Your task to perform on an android device: turn off location history Image 0: 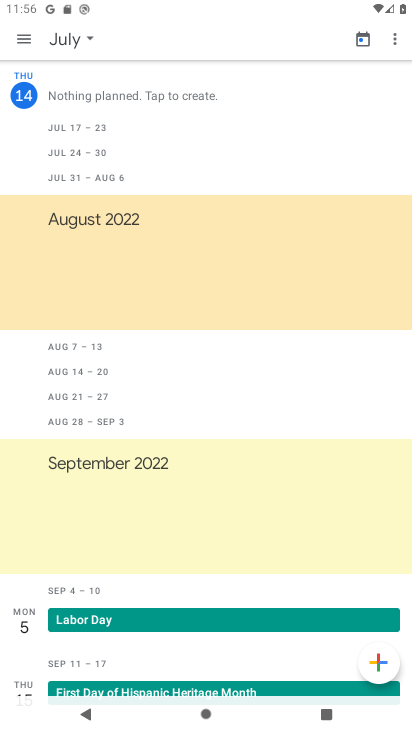
Step 0: press home button
Your task to perform on an android device: turn off location history Image 1: 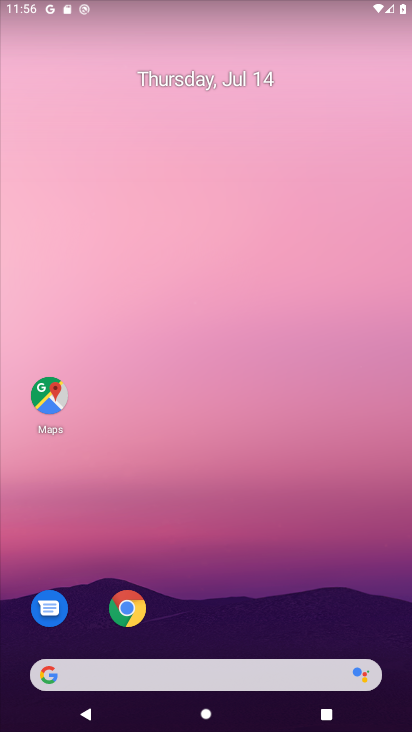
Step 1: click (46, 392)
Your task to perform on an android device: turn off location history Image 2: 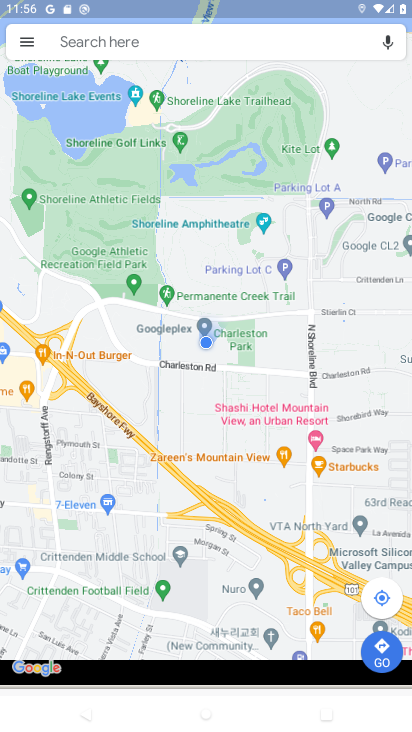
Step 2: click (21, 33)
Your task to perform on an android device: turn off location history Image 3: 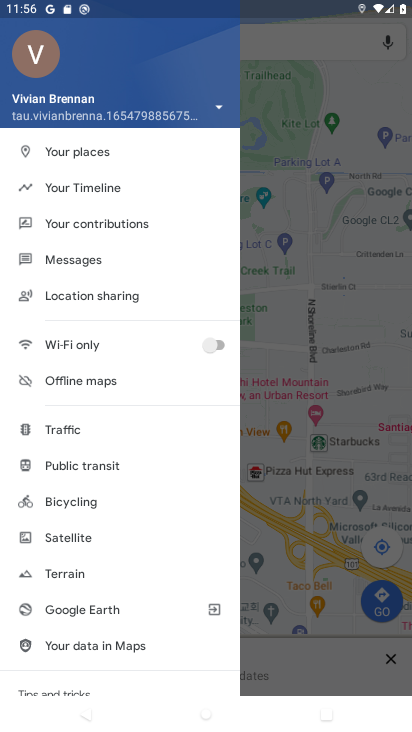
Step 3: click (85, 188)
Your task to perform on an android device: turn off location history Image 4: 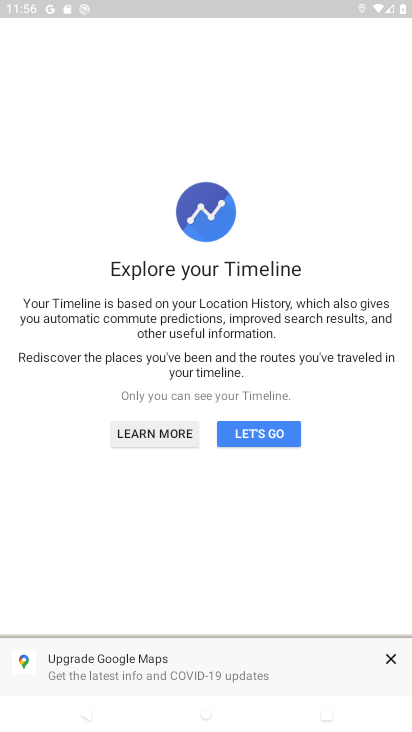
Step 4: click (276, 443)
Your task to perform on an android device: turn off location history Image 5: 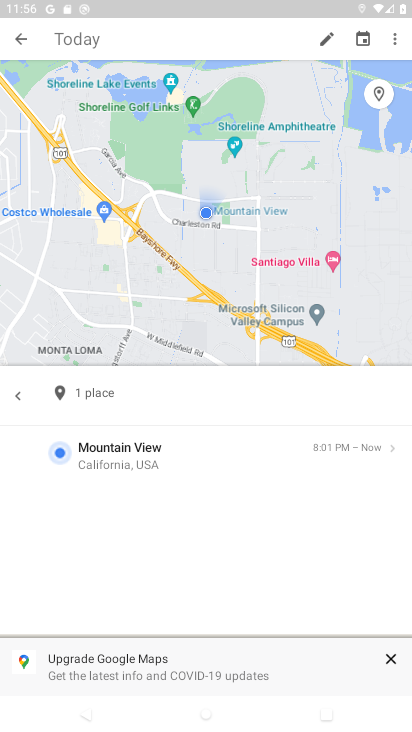
Step 5: click (395, 41)
Your task to perform on an android device: turn off location history Image 6: 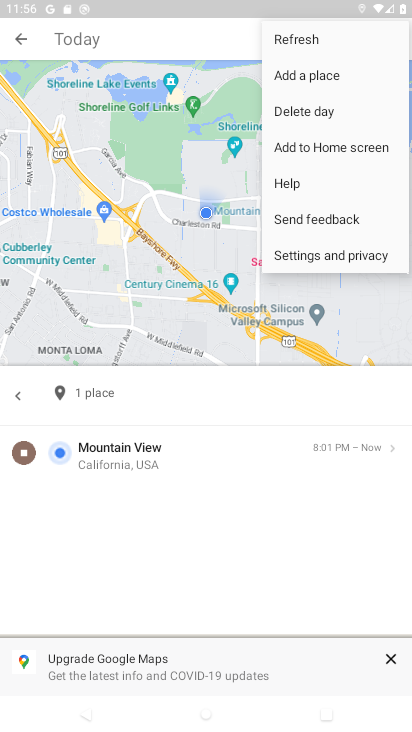
Step 6: click (309, 253)
Your task to perform on an android device: turn off location history Image 7: 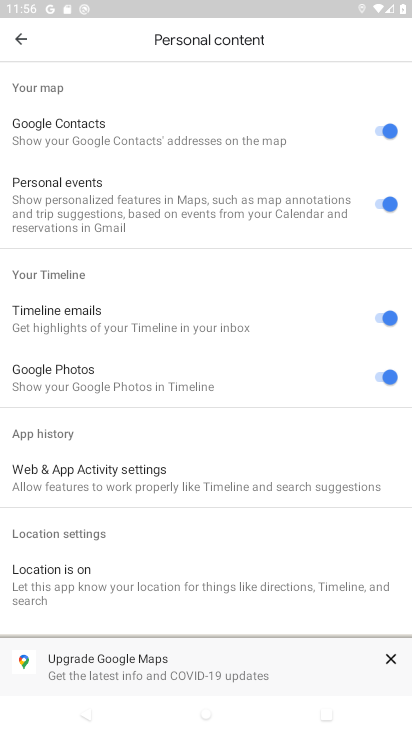
Step 7: drag from (235, 541) to (224, 304)
Your task to perform on an android device: turn off location history Image 8: 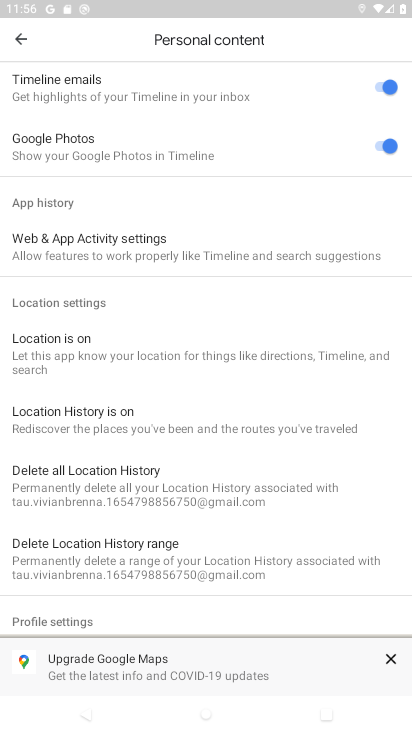
Step 8: click (76, 410)
Your task to perform on an android device: turn off location history Image 9: 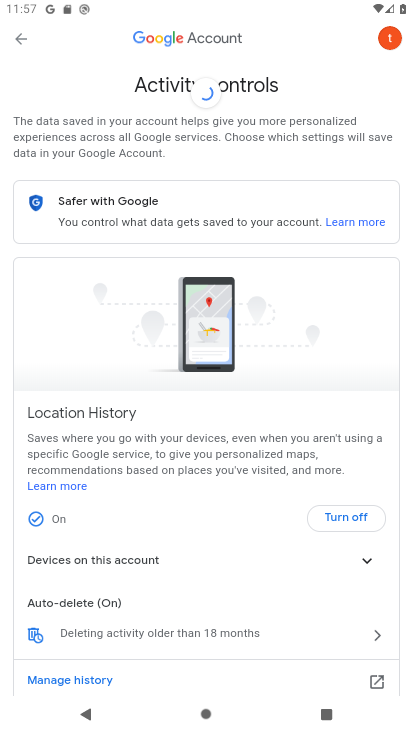
Step 9: click (347, 520)
Your task to perform on an android device: turn off location history Image 10: 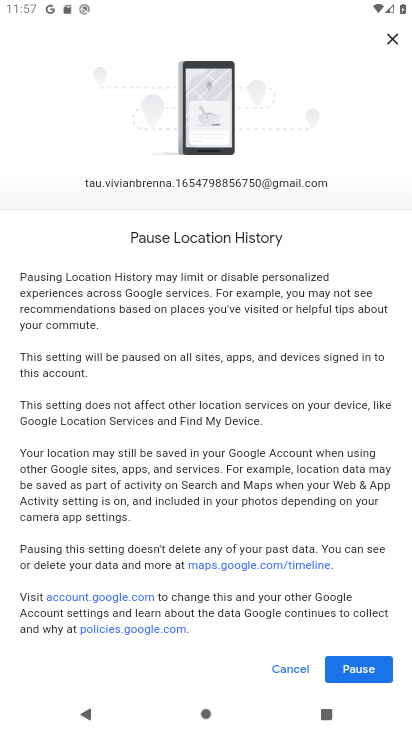
Step 10: click (357, 673)
Your task to perform on an android device: turn off location history Image 11: 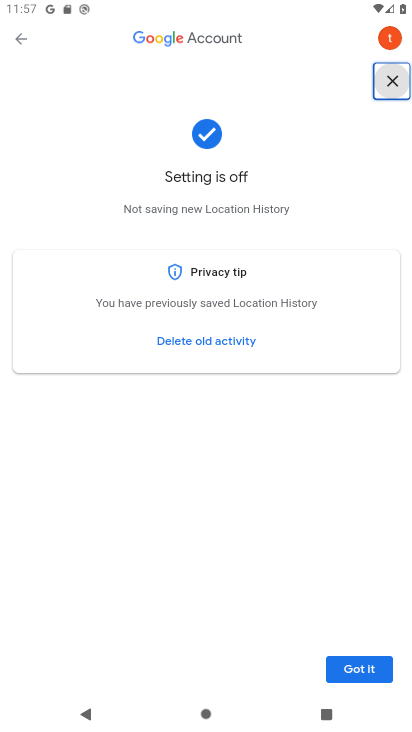
Step 11: click (365, 669)
Your task to perform on an android device: turn off location history Image 12: 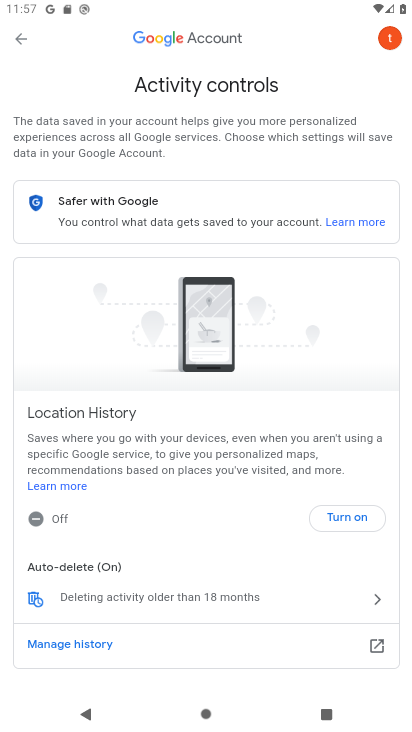
Step 12: task complete